Your task to perform on an android device: turn off data saver in the chrome app Image 0: 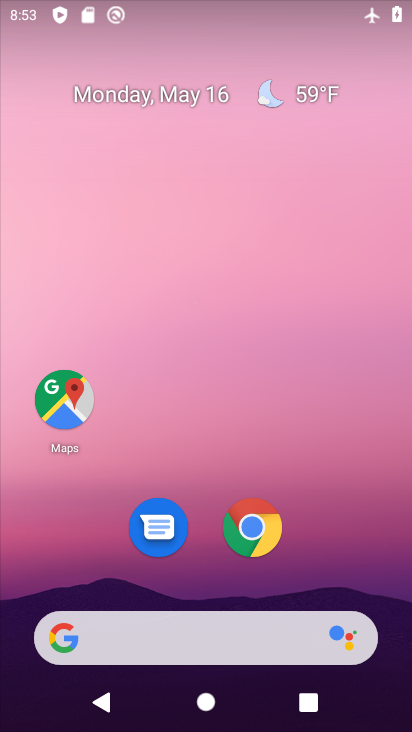
Step 0: click (248, 533)
Your task to perform on an android device: turn off data saver in the chrome app Image 1: 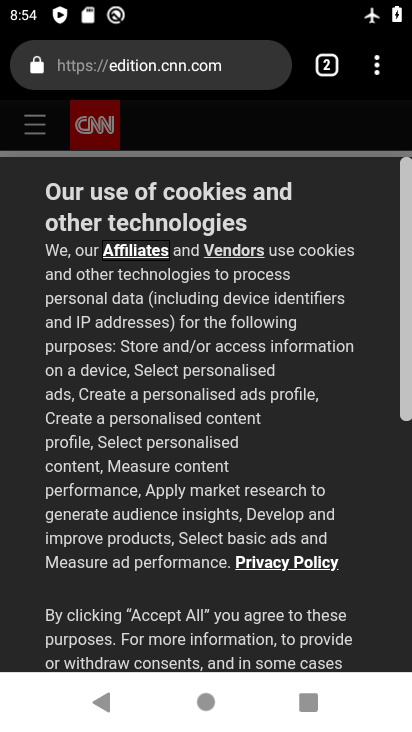
Step 1: click (375, 64)
Your task to perform on an android device: turn off data saver in the chrome app Image 2: 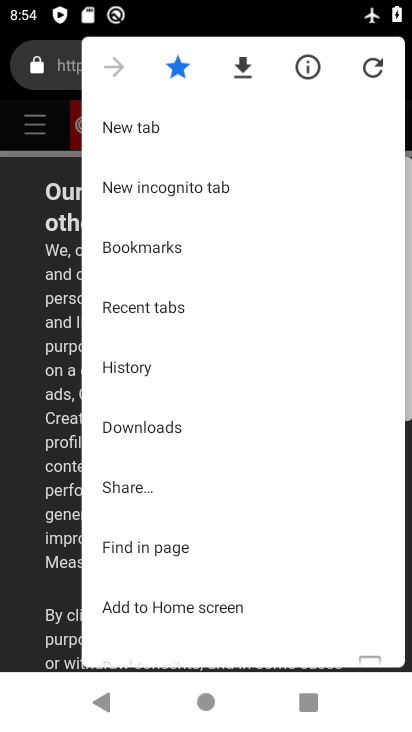
Step 2: drag from (280, 587) to (282, 252)
Your task to perform on an android device: turn off data saver in the chrome app Image 3: 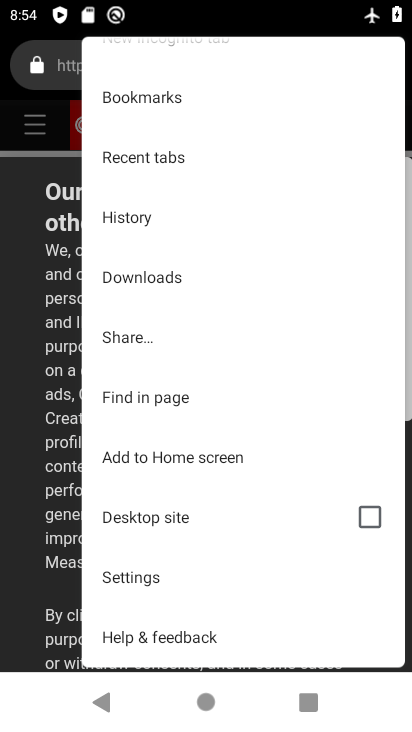
Step 3: click (139, 566)
Your task to perform on an android device: turn off data saver in the chrome app Image 4: 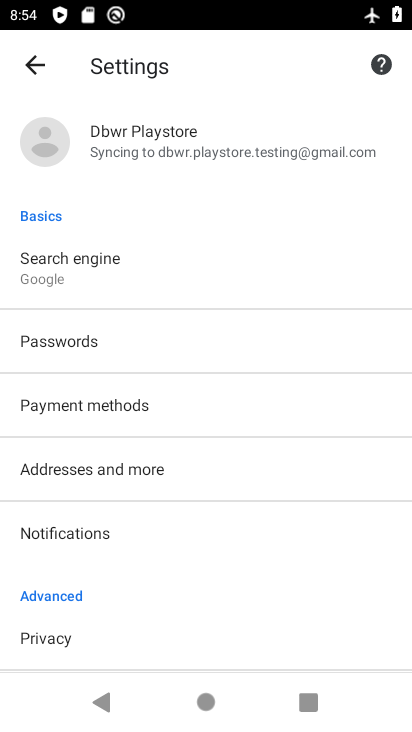
Step 4: drag from (219, 587) to (243, 291)
Your task to perform on an android device: turn off data saver in the chrome app Image 5: 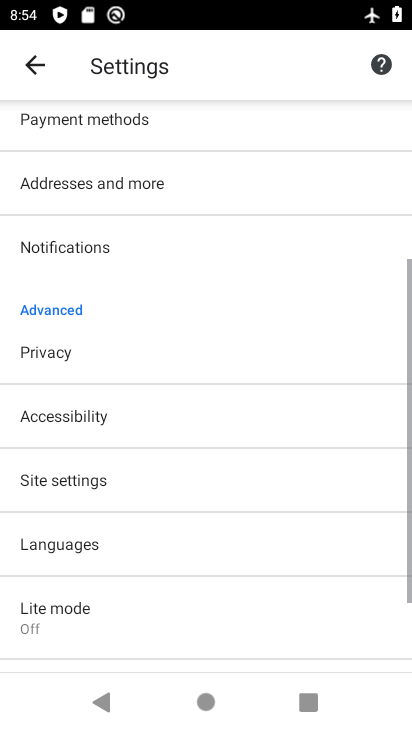
Step 5: click (54, 533)
Your task to perform on an android device: turn off data saver in the chrome app Image 6: 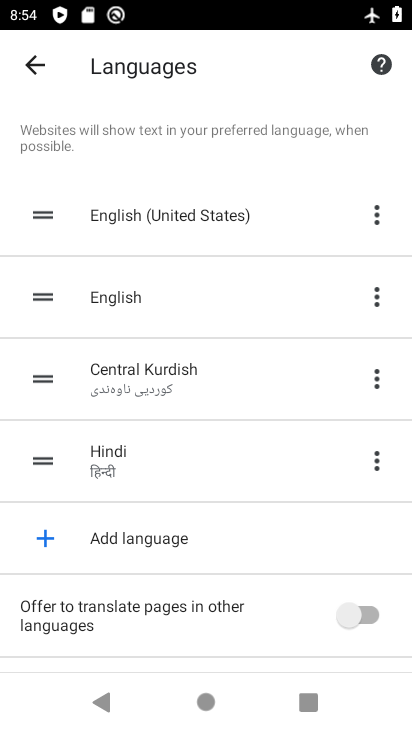
Step 6: click (28, 56)
Your task to perform on an android device: turn off data saver in the chrome app Image 7: 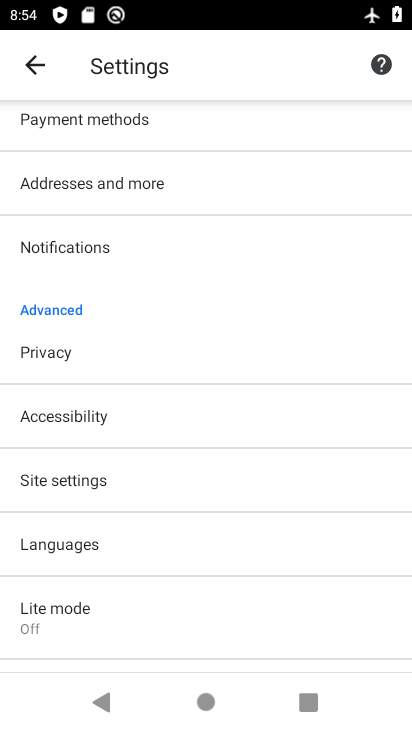
Step 7: click (44, 614)
Your task to perform on an android device: turn off data saver in the chrome app Image 8: 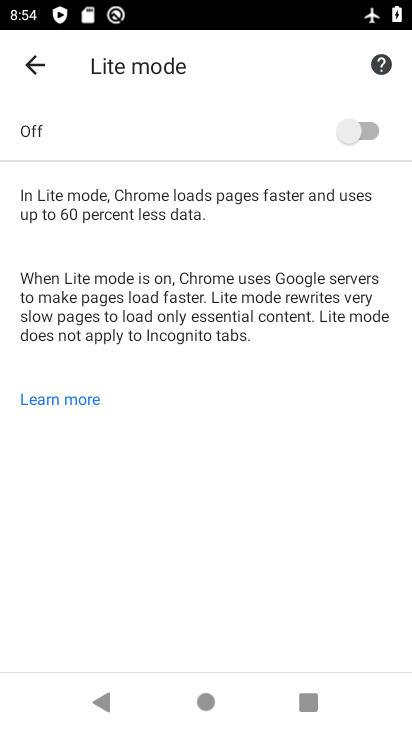
Step 8: task complete